Your task to perform on an android device: What's the weather today? Image 0: 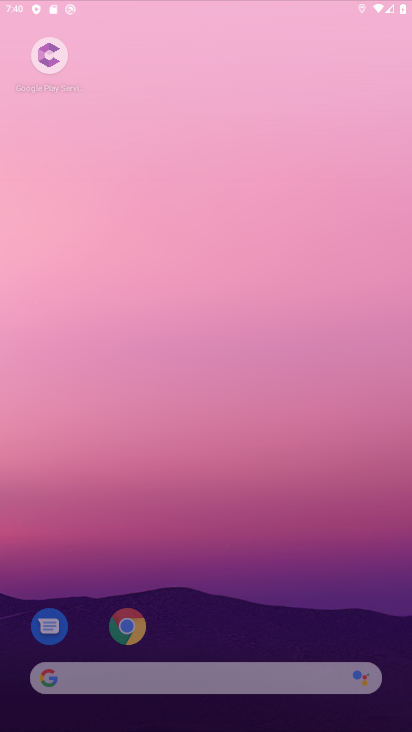
Step 0: drag from (297, 650) to (216, 53)
Your task to perform on an android device: What's the weather today? Image 1: 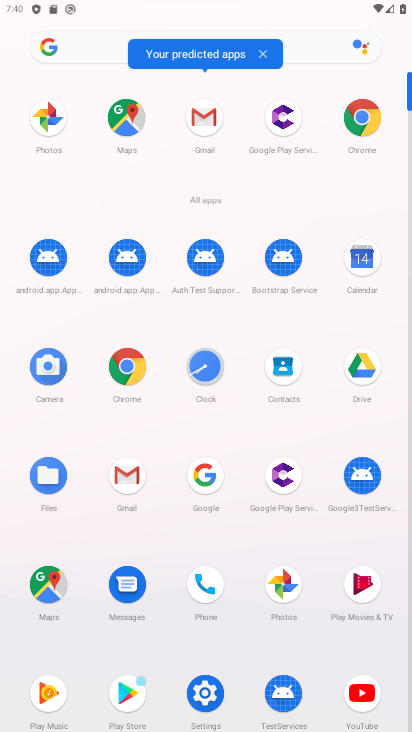
Step 1: click (367, 121)
Your task to perform on an android device: What's the weather today? Image 2: 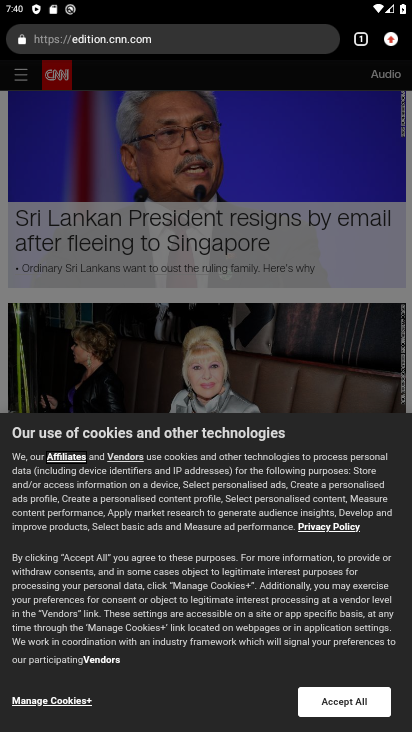
Step 2: click (222, 40)
Your task to perform on an android device: What's the weather today? Image 3: 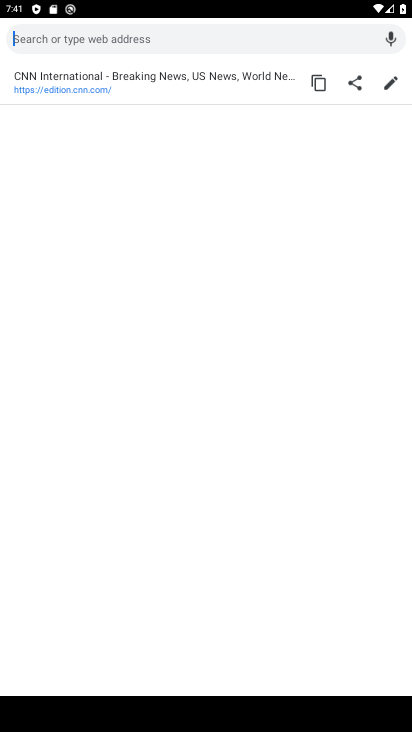
Step 3: type "weather today"
Your task to perform on an android device: What's the weather today? Image 4: 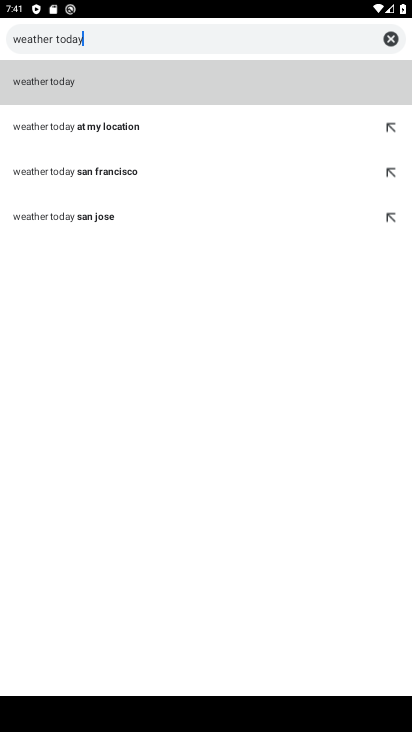
Step 4: type ""
Your task to perform on an android device: What's the weather today? Image 5: 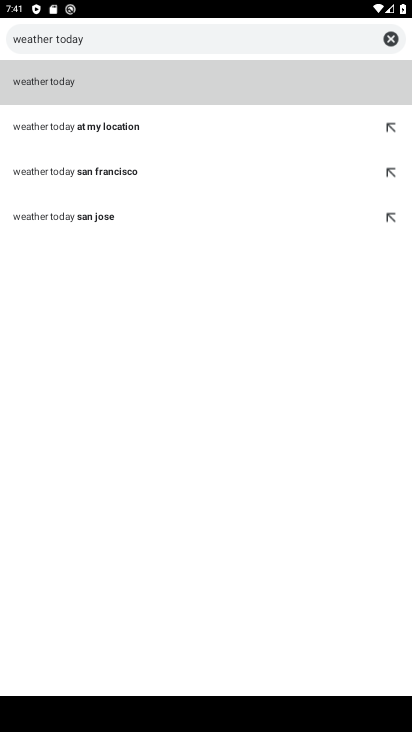
Step 5: click (268, 82)
Your task to perform on an android device: What's the weather today? Image 6: 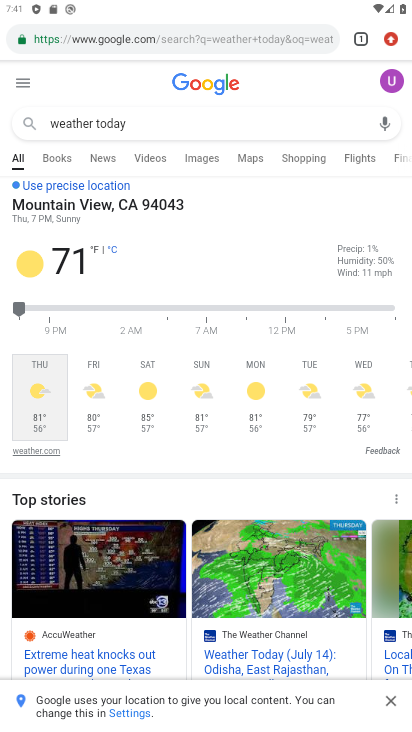
Step 6: task complete